Your task to perform on an android device: open app "Microsoft Authenticator" (install if not already installed) Image 0: 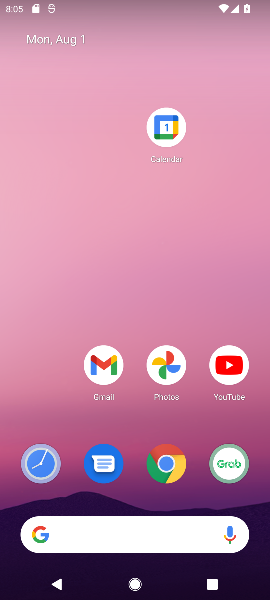
Step 0: drag from (136, 501) to (166, 51)
Your task to perform on an android device: open app "Microsoft Authenticator" (install if not already installed) Image 1: 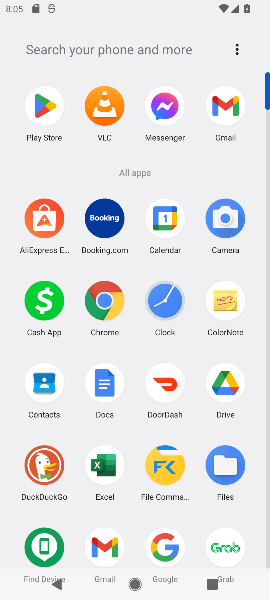
Step 1: click (45, 124)
Your task to perform on an android device: open app "Microsoft Authenticator" (install if not already installed) Image 2: 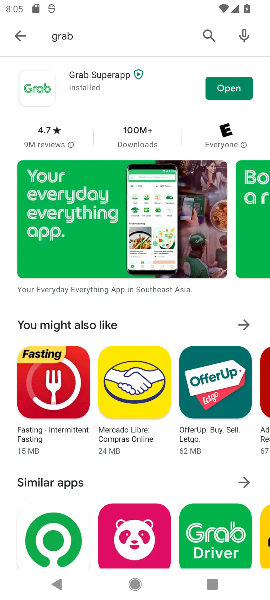
Step 2: click (199, 39)
Your task to perform on an android device: open app "Microsoft Authenticator" (install if not already installed) Image 3: 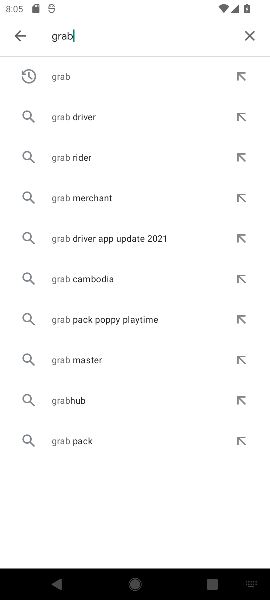
Step 3: click (242, 35)
Your task to perform on an android device: open app "Microsoft Authenticator" (install if not already installed) Image 4: 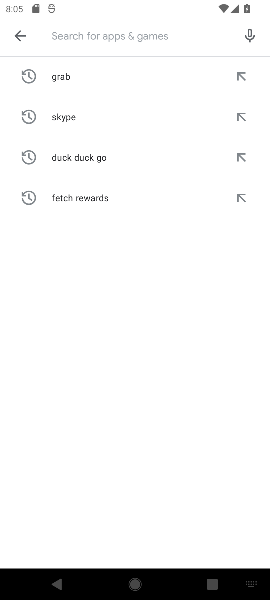
Step 4: type "microsoft authenticator"
Your task to perform on an android device: open app "Microsoft Authenticator" (install if not already installed) Image 5: 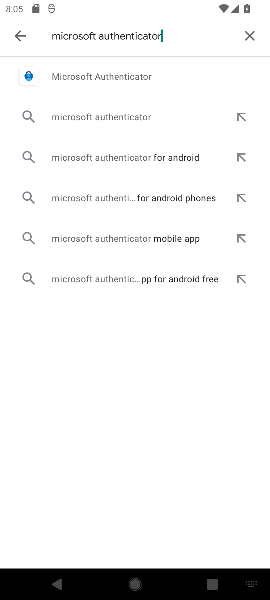
Step 5: click (145, 82)
Your task to perform on an android device: open app "Microsoft Authenticator" (install if not already installed) Image 6: 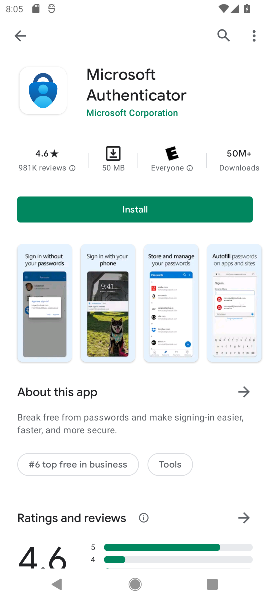
Step 6: click (180, 218)
Your task to perform on an android device: open app "Microsoft Authenticator" (install if not already installed) Image 7: 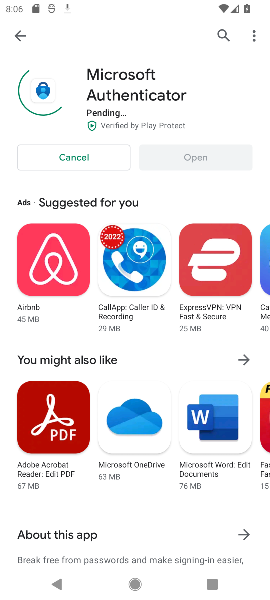
Step 7: task complete